Your task to perform on an android device: find photos in the google photos app Image 0: 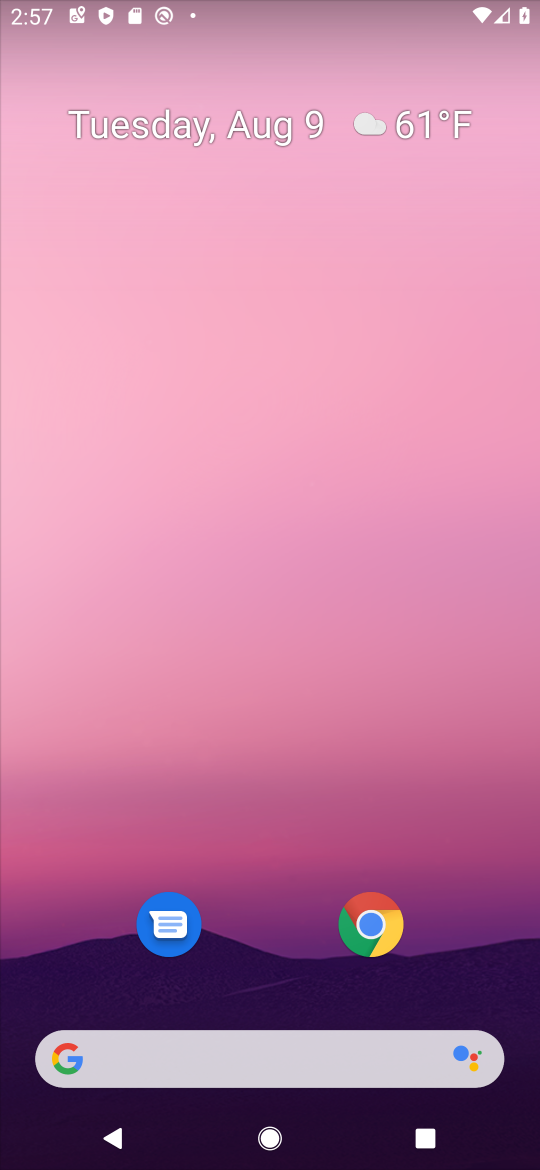
Step 0: drag from (290, 864) to (263, 60)
Your task to perform on an android device: find photos in the google photos app Image 1: 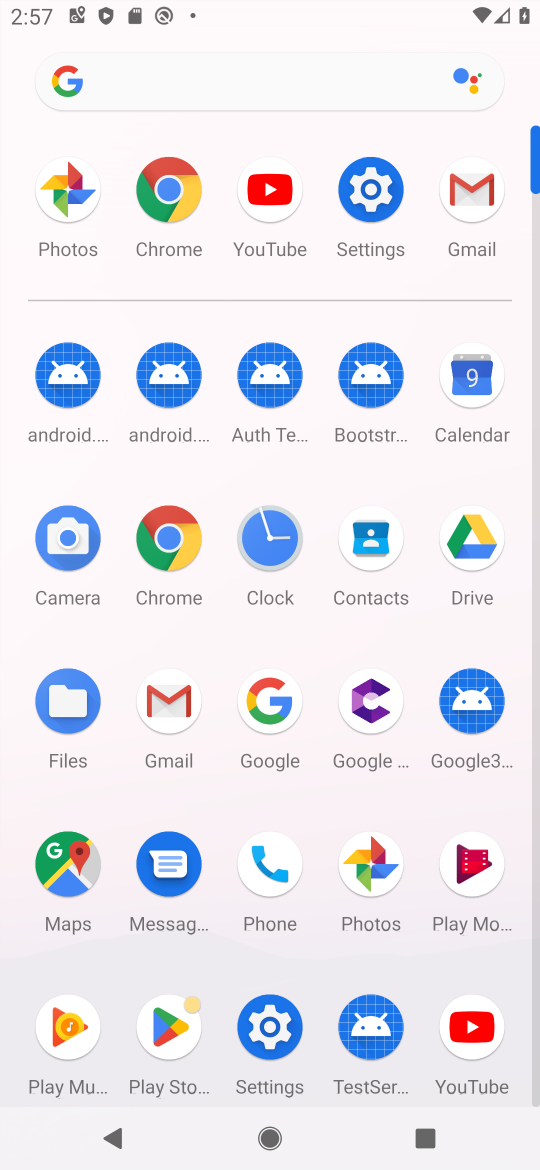
Step 1: click (76, 189)
Your task to perform on an android device: find photos in the google photos app Image 2: 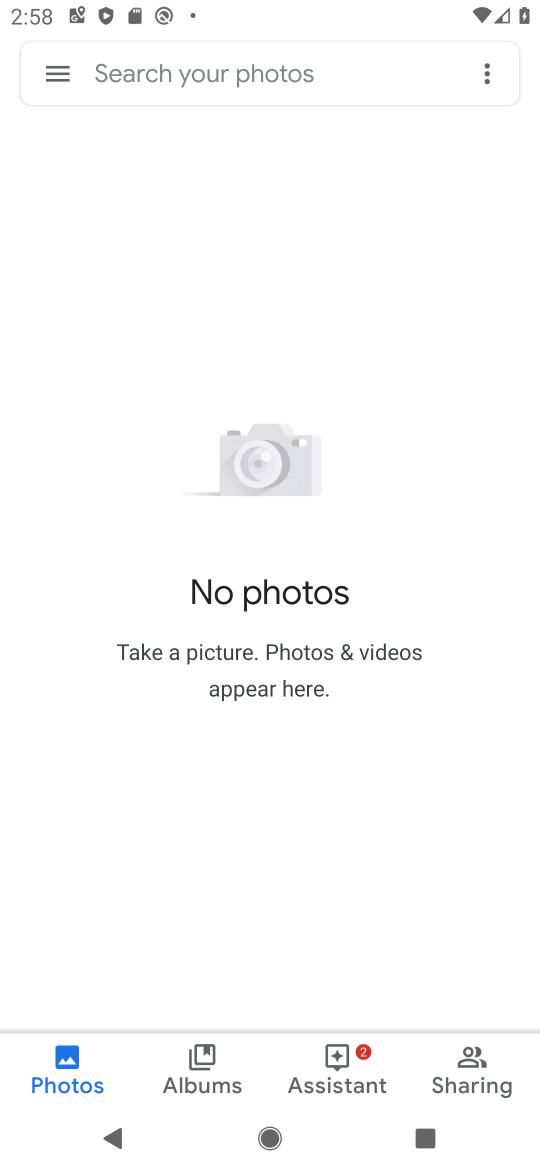
Step 2: task complete